Your task to perform on an android device: turn on the 12-hour format for clock Image 0: 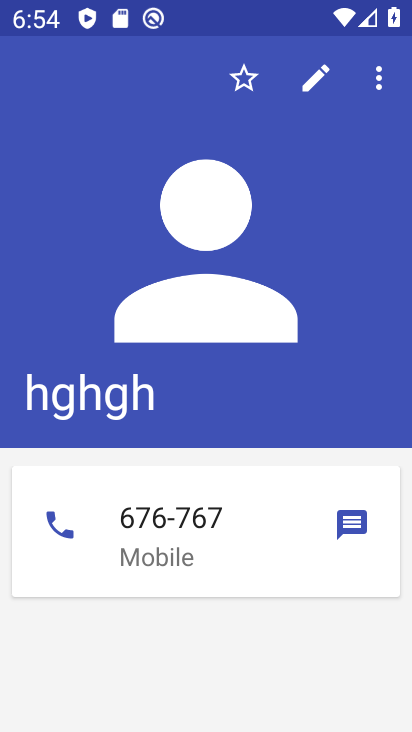
Step 0: press back button
Your task to perform on an android device: turn on the 12-hour format for clock Image 1: 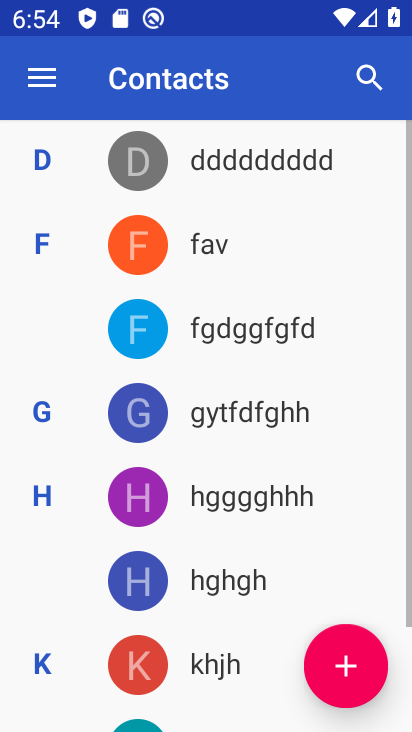
Step 1: press back button
Your task to perform on an android device: turn on the 12-hour format for clock Image 2: 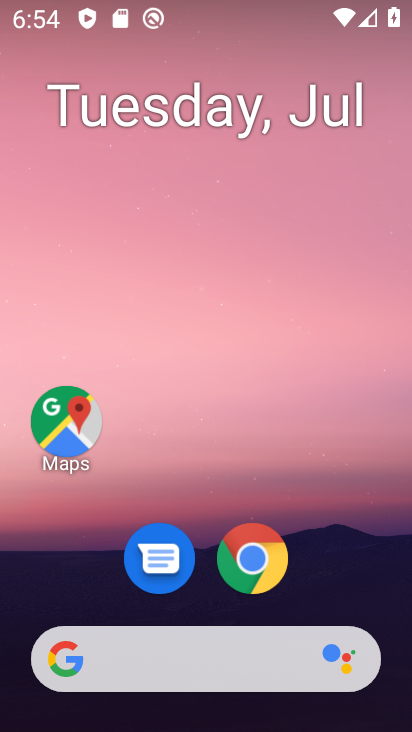
Step 2: drag from (226, 593) to (239, 111)
Your task to perform on an android device: turn on the 12-hour format for clock Image 3: 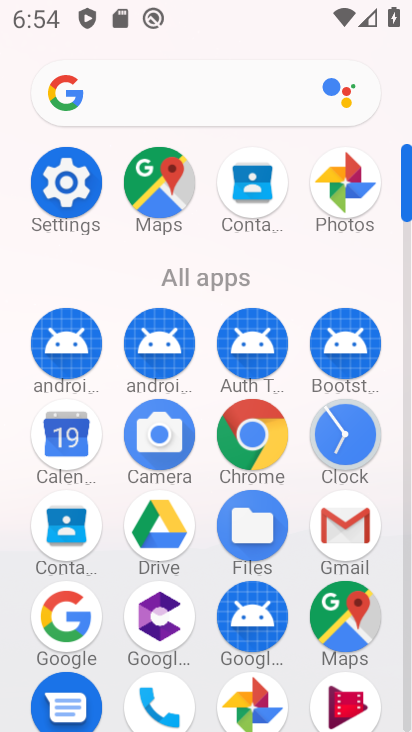
Step 3: click (362, 431)
Your task to perform on an android device: turn on the 12-hour format for clock Image 4: 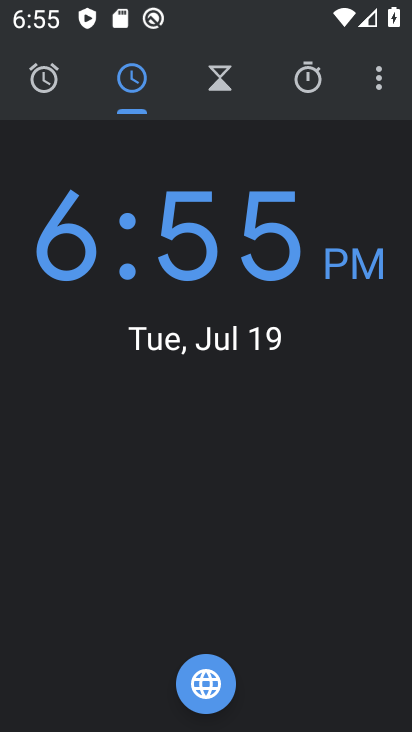
Step 4: click (371, 77)
Your task to perform on an android device: turn on the 12-hour format for clock Image 5: 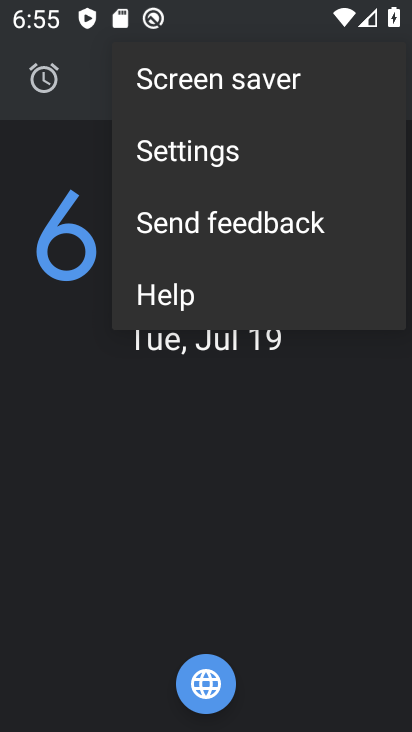
Step 5: click (162, 162)
Your task to perform on an android device: turn on the 12-hour format for clock Image 6: 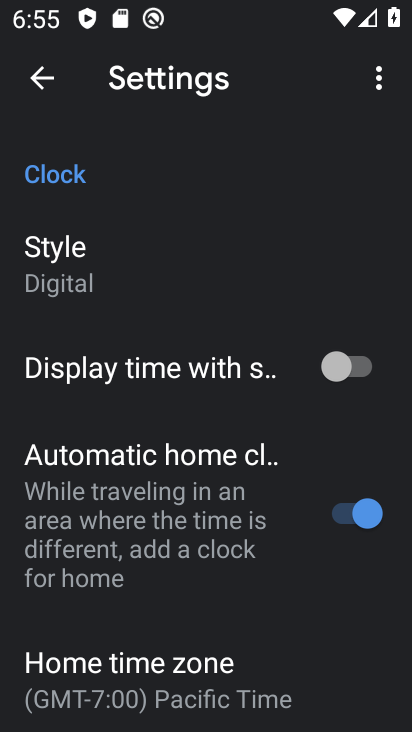
Step 6: drag from (168, 703) to (282, 108)
Your task to perform on an android device: turn on the 12-hour format for clock Image 7: 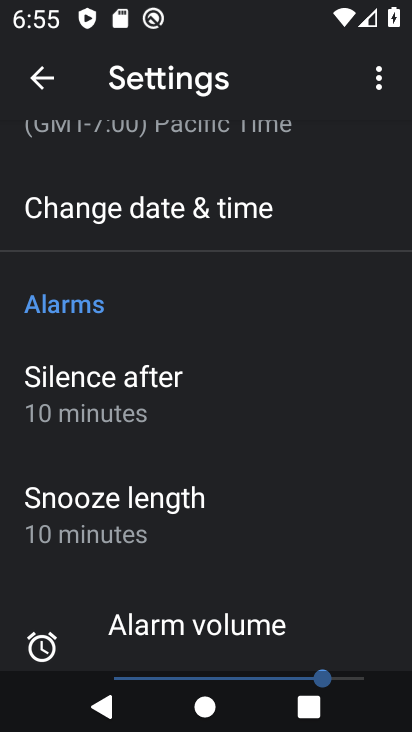
Step 7: click (176, 199)
Your task to perform on an android device: turn on the 12-hour format for clock Image 8: 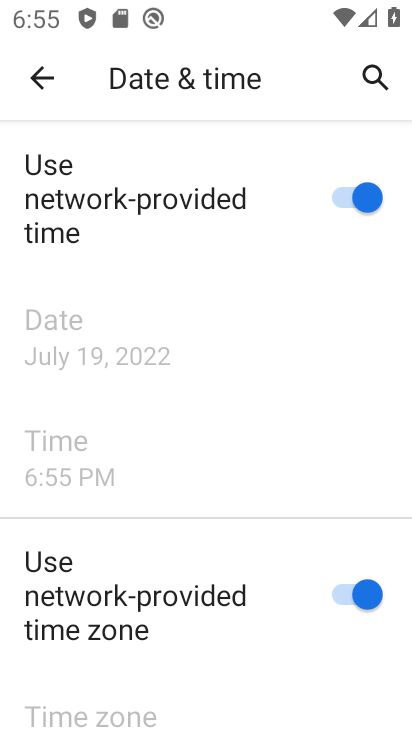
Step 8: task complete